Your task to perform on an android device: turn on the 12-hour format for clock Image 0: 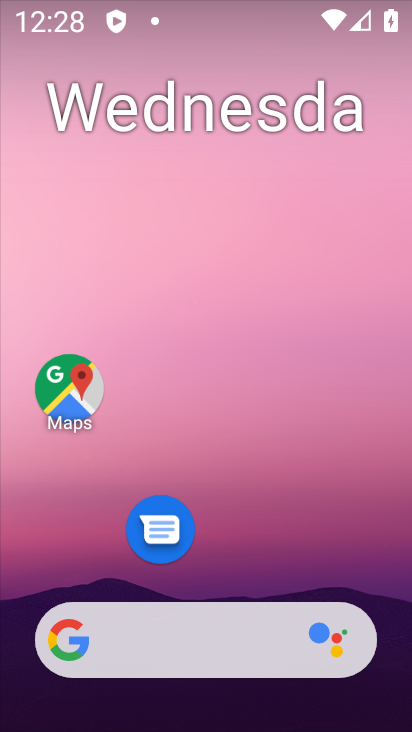
Step 0: drag from (155, 595) to (332, 482)
Your task to perform on an android device: turn on the 12-hour format for clock Image 1: 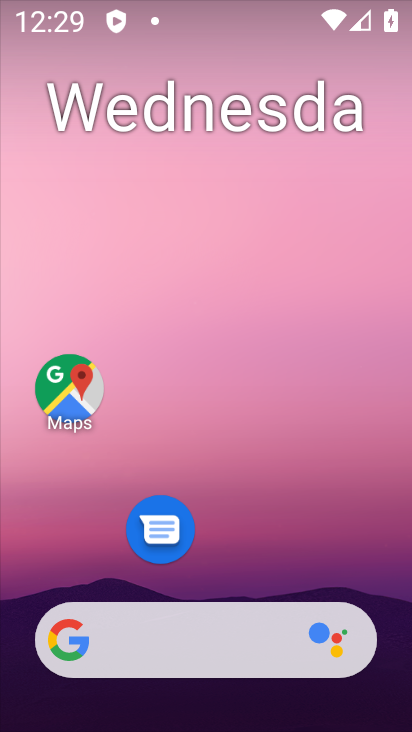
Step 1: drag from (210, 615) to (210, 16)
Your task to perform on an android device: turn on the 12-hour format for clock Image 2: 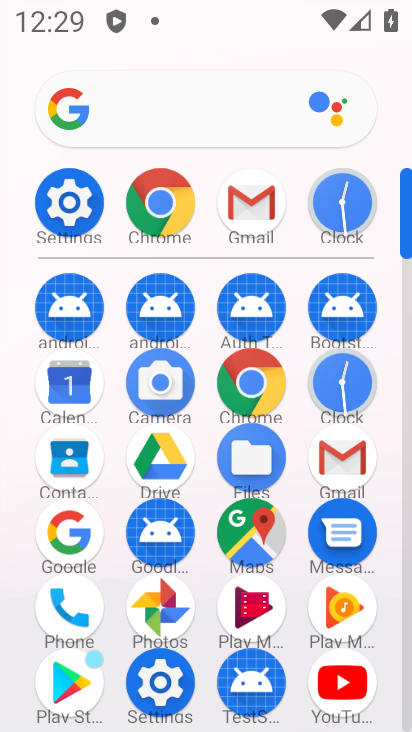
Step 2: click (346, 406)
Your task to perform on an android device: turn on the 12-hour format for clock Image 3: 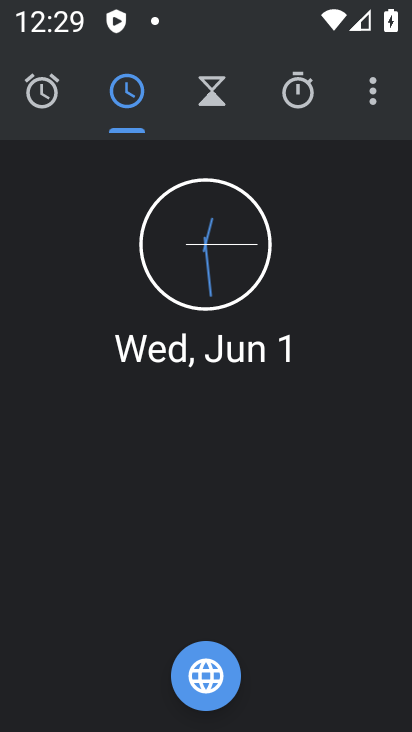
Step 3: click (371, 105)
Your task to perform on an android device: turn on the 12-hour format for clock Image 4: 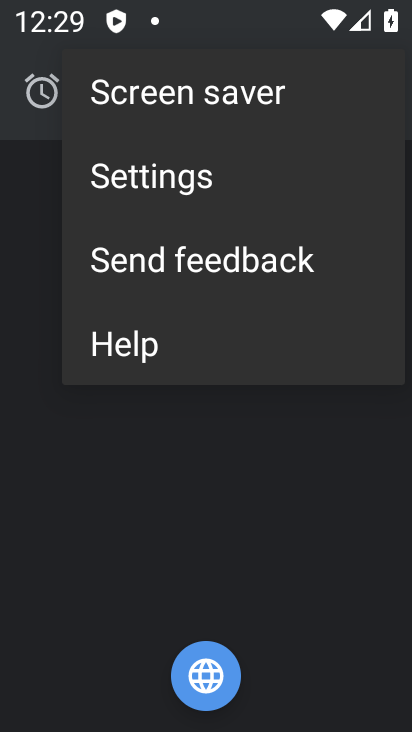
Step 4: click (190, 188)
Your task to perform on an android device: turn on the 12-hour format for clock Image 5: 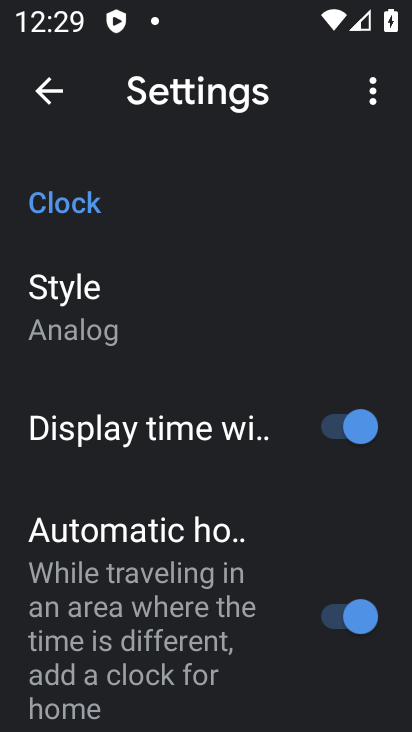
Step 5: drag from (205, 513) to (205, 30)
Your task to perform on an android device: turn on the 12-hour format for clock Image 6: 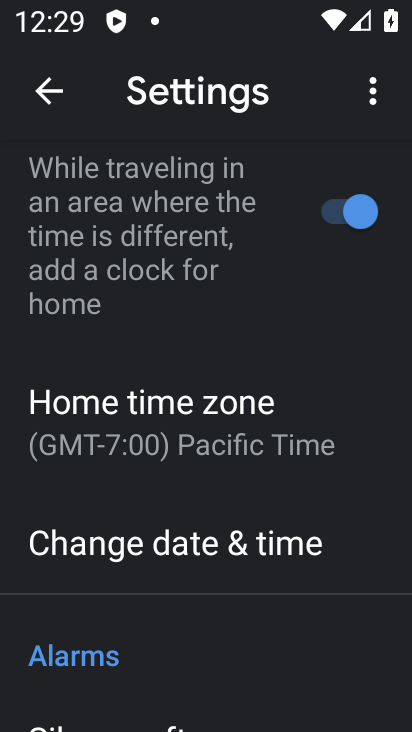
Step 6: click (194, 531)
Your task to perform on an android device: turn on the 12-hour format for clock Image 7: 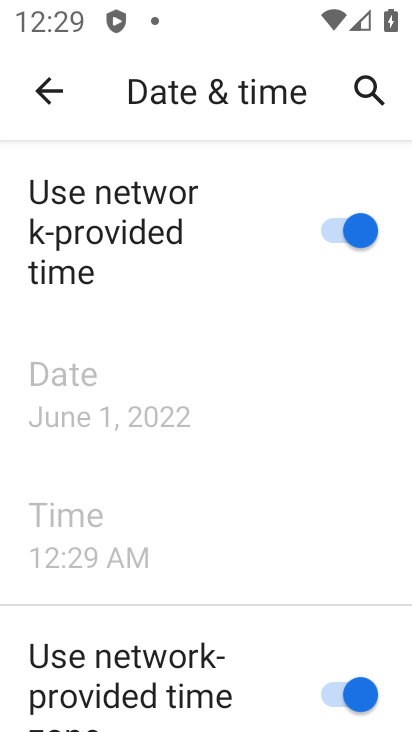
Step 7: task complete